Your task to perform on an android device: add a label to a message in the gmail app Image 0: 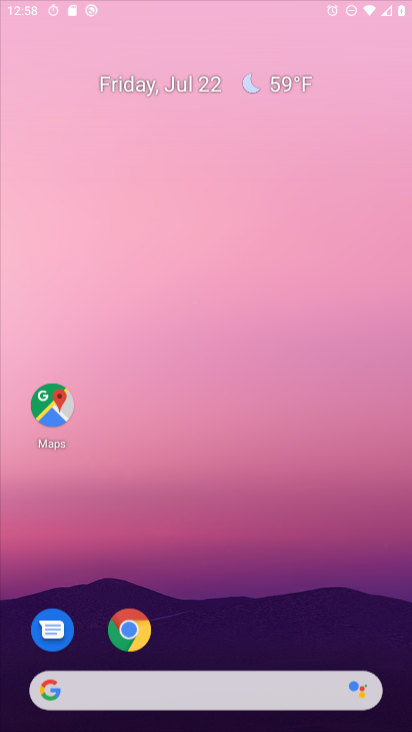
Step 0: press home button
Your task to perform on an android device: add a label to a message in the gmail app Image 1: 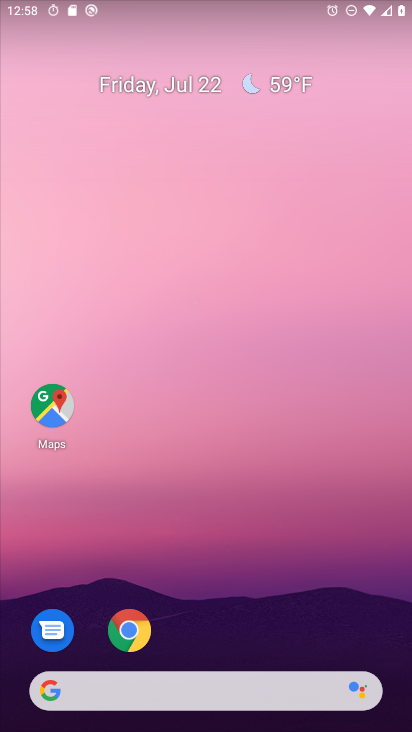
Step 1: drag from (216, 647) to (290, 21)
Your task to perform on an android device: add a label to a message in the gmail app Image 2: 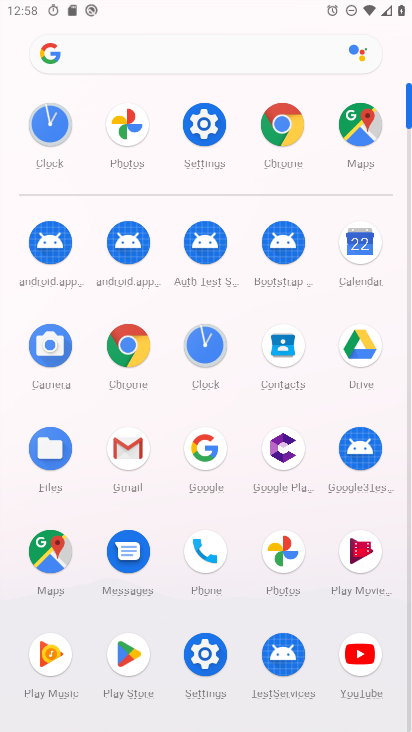
Step 2: click (130, 450)
Your task to perform on an android device: add a label to a message in the gmail app Image 3: 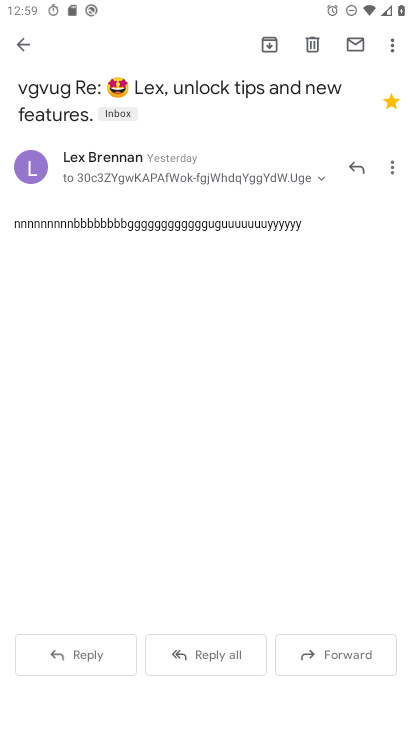
Step 3: click (19, 44)
Your task to perform on an android device: add a label to a message in the gmail app Image 4: 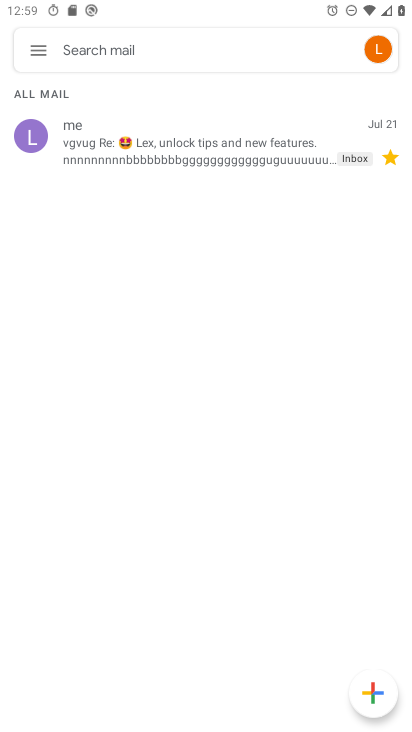
Step 4: click (279, 139)
Your task to perform on an android device: add a label to a message in the gmail app Image 5: 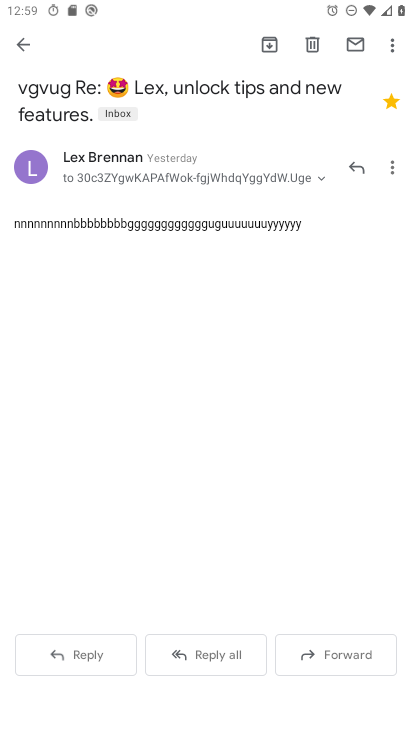
Step 5: click (389, 43)
Your task to perform on an android device: add a label to a message in the gmail app Image 6: 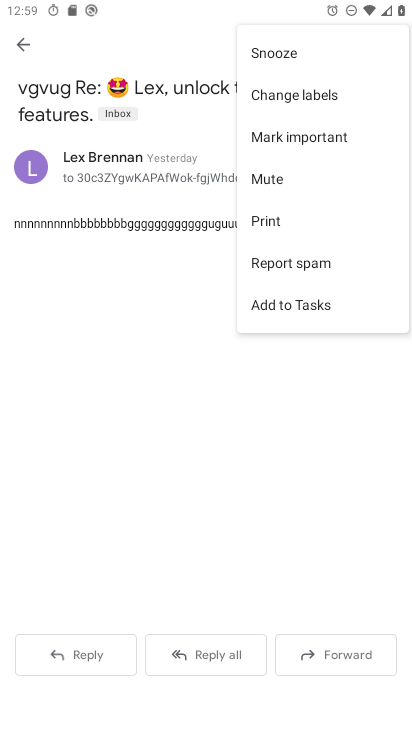
Step 6: click (328, 96)
Your task to perform on an android device: add a label to a message in the gmail app Image 7: 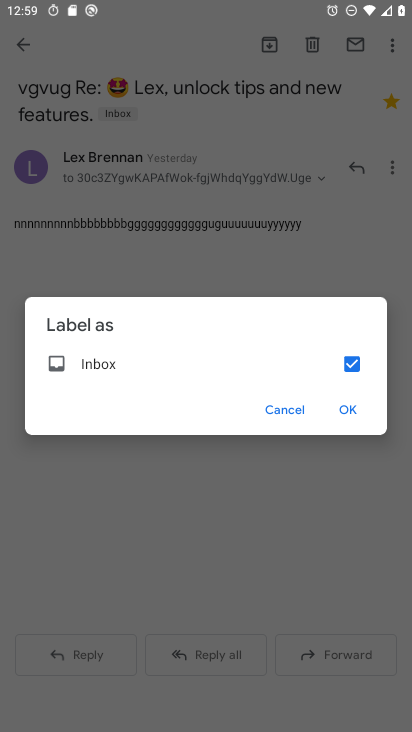
Step 7: click (347, 410)
Your task to perform on an android device: add a label to a message in the gmail app Image 8: 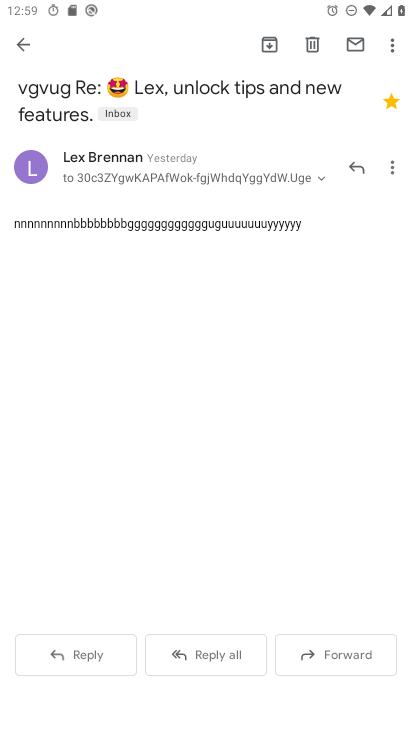
Step 8: task complete